Your task to perform on an android device: stop showing notifications on the lock screen Image 0: 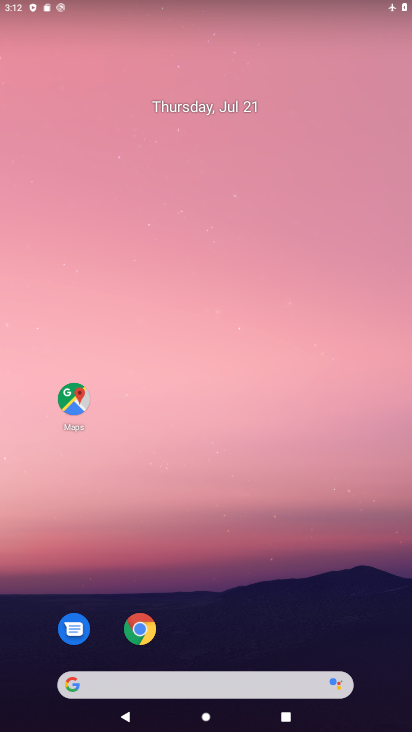
Step 0: drag from (330, 634) to (334, 2)
Your task to perform on an android device: stop showing notifications on the lock screen Image 1: 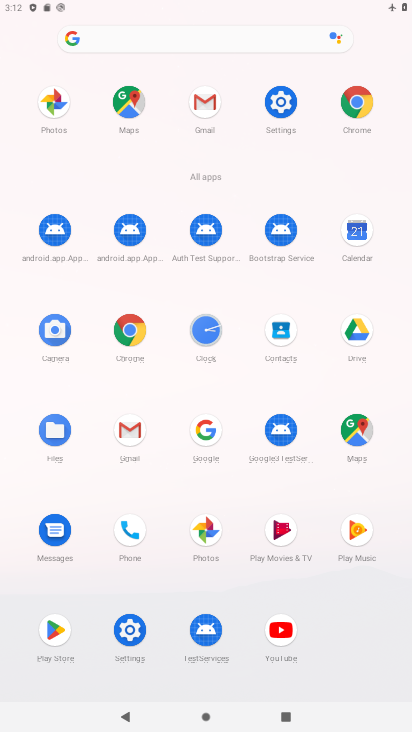
Step 1: click (278, 91)
Your task to perform on an android device: stop showing notifications on the lock screen Image 2: 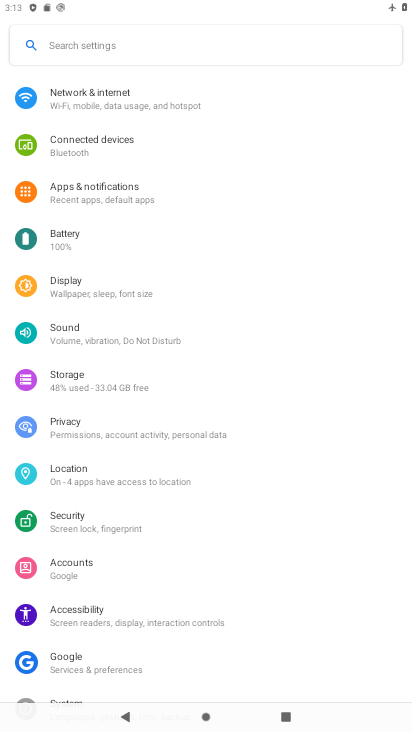
Step 2: click (140, 187)
Your task to perform on an android device: stop showing notifications on the lock screen Image 3: 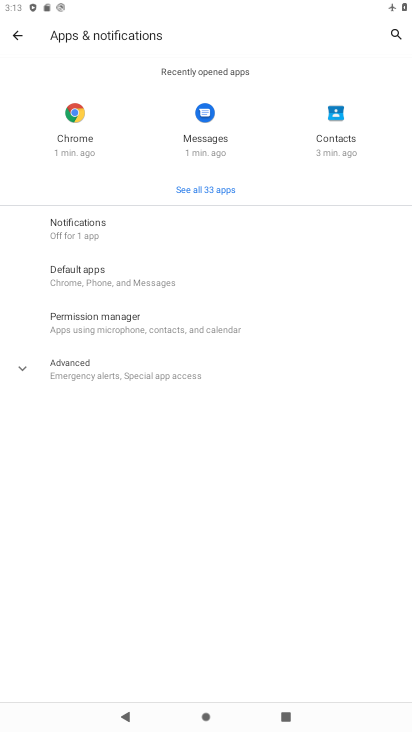
Step 3: click (103, 232)
Your task to perform on an android device: stop showing notifications on the lock screen Image 4: 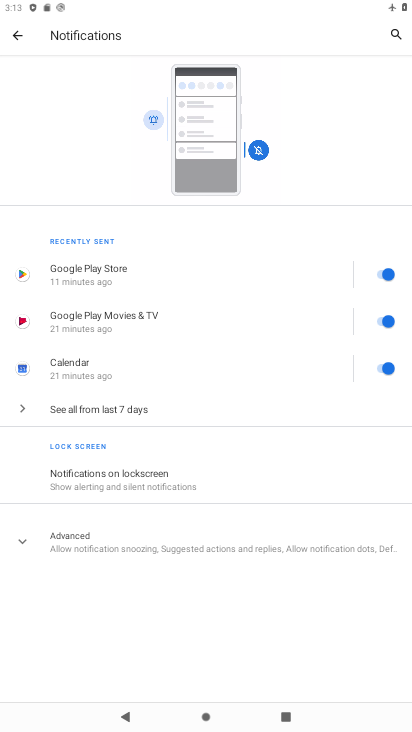
Step 4: click (121, 480)
Your task to perform on an android device: stop showing notifications on the lock screen Image 5: 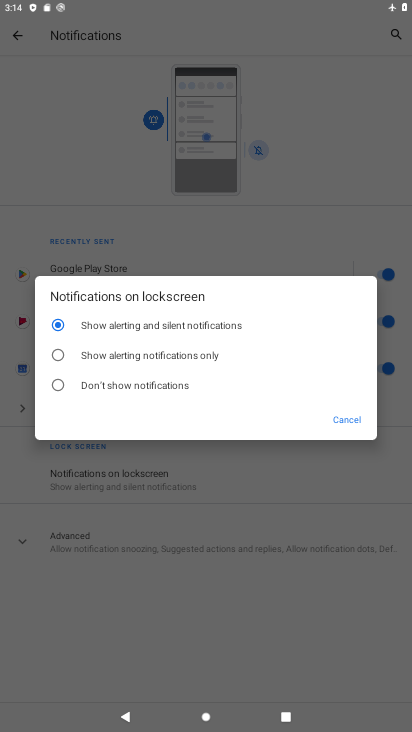
Step 5: click (154, 384)
Your task to perform on an android device: stop showing notifications on the lock screen Image 6: 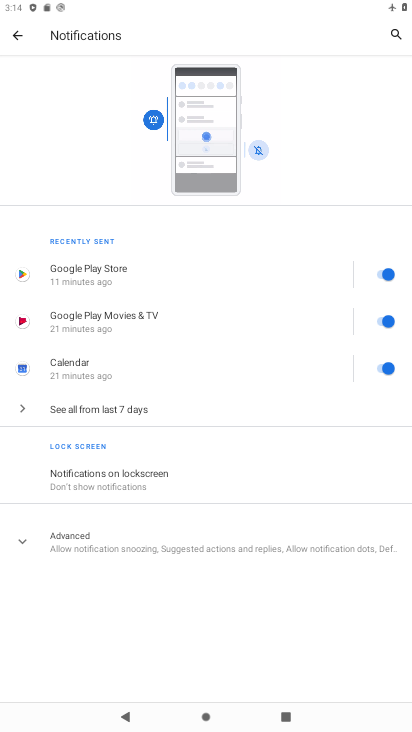
Step 6: task complete